Your task to perform on an android device: check android version Image 0: 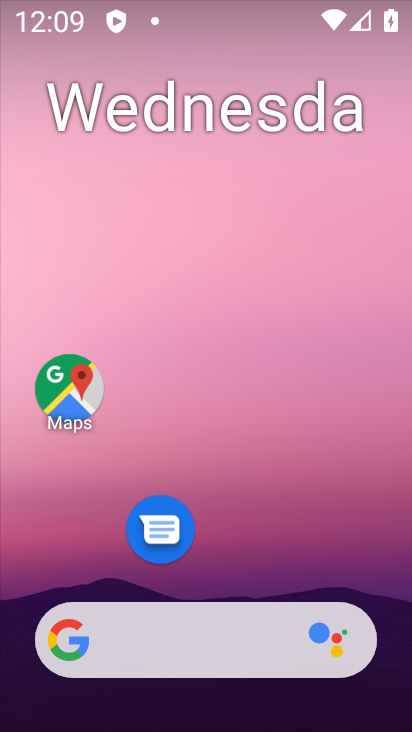
Step 0: drag from (184, 622) to (162, 10)
Your task to perform on an android device: check android version Image 1: 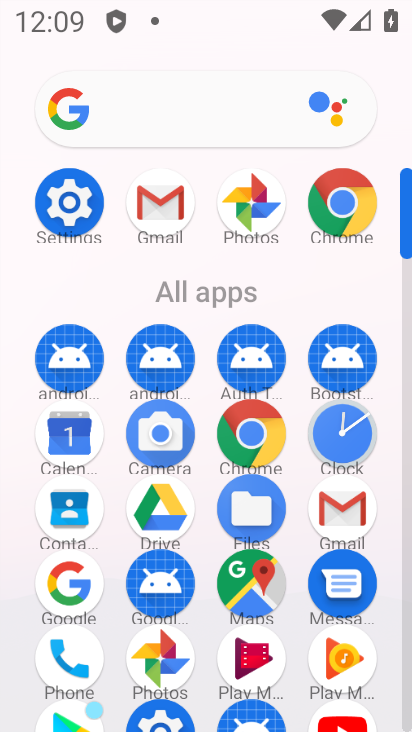
Step 1: click (75, 206)
Your task to perform on an android device: check android version Image 2: 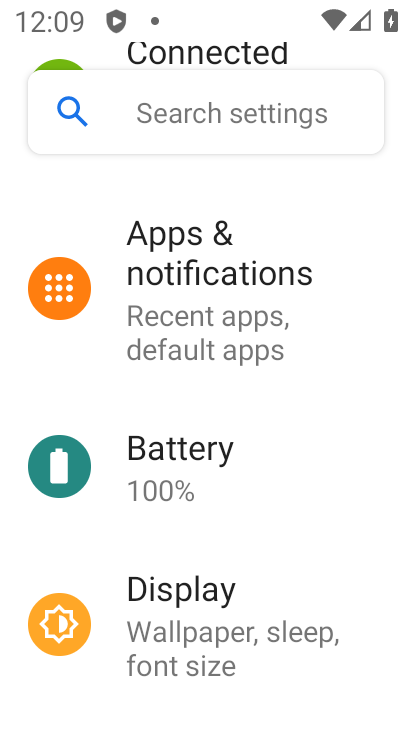
Step 2: drag from (129, 545) to (91, 39)
Your task to perform on an android device: check android version Image 3: 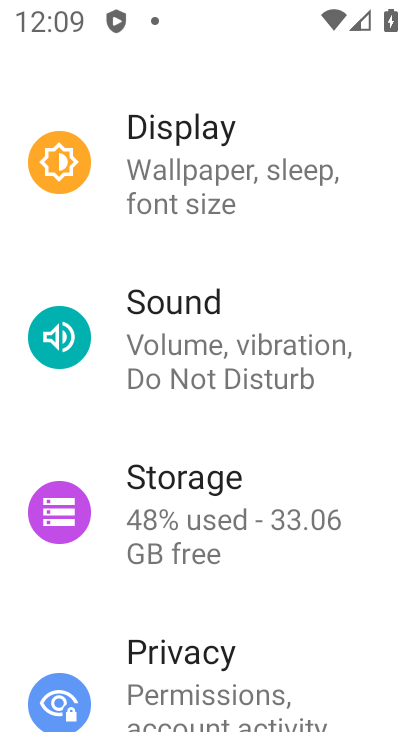
Step 3: drag from (191, 661) to (138, 161)
Your task to perform on an android device: check android version Image 4: 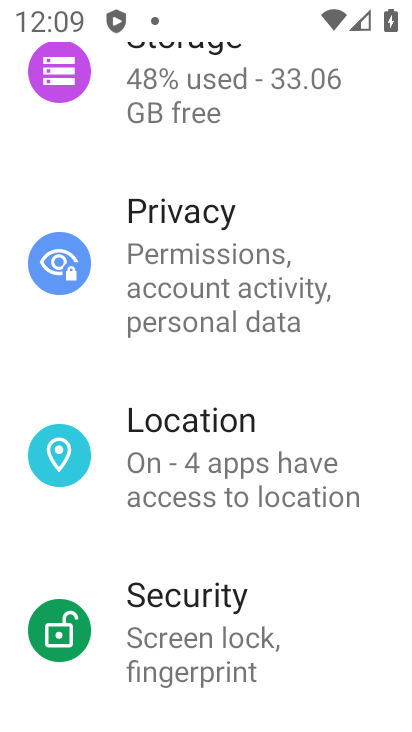
Step 4: drag from (207, 671) to (208, 209)
Your task to perform on an android device: check android version Image 5: 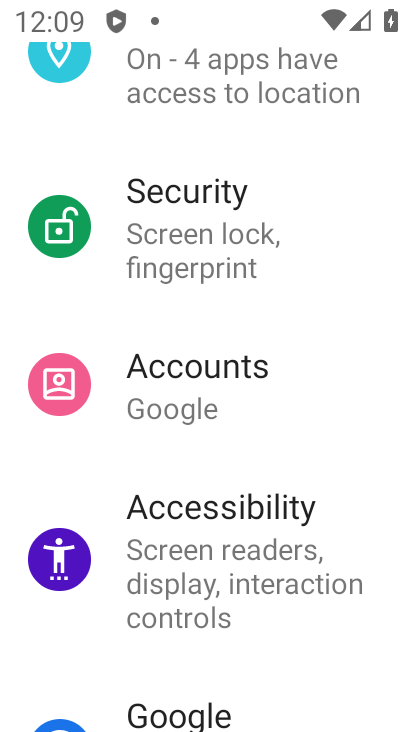
Step 5: drag from (198, 683) to (161, 14)
Your task to perform on an android device: check android version Image 6: 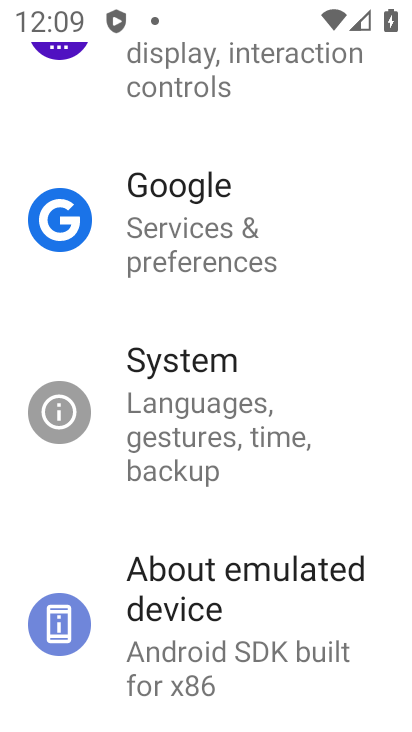
Step 6: click (197, 653)
Your task to perform on an android device: check android version Image 7: 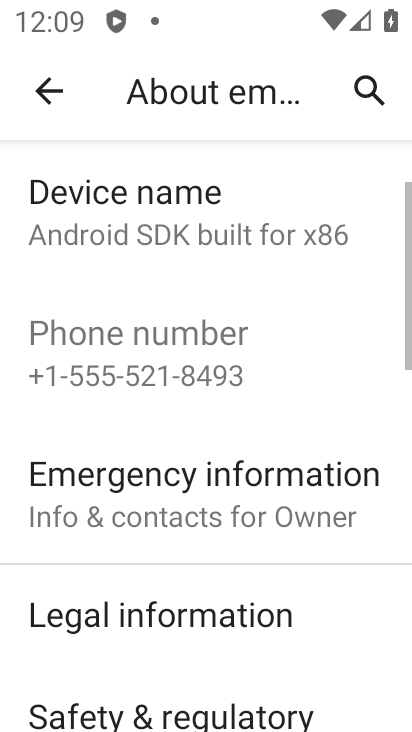
Step 7: drag from (238, 563) to (239, 197)
Your task to perform on an android device: check android version Image 8: 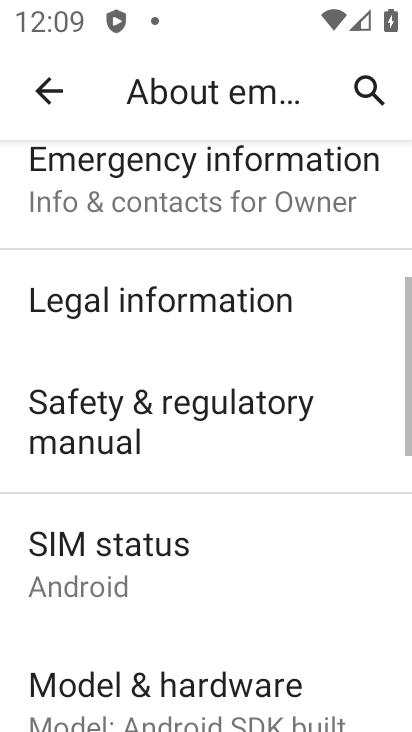
Step 8: drag from (181, 606) to (143, 286)
Your task to perform on an android device: check android version Image 9: 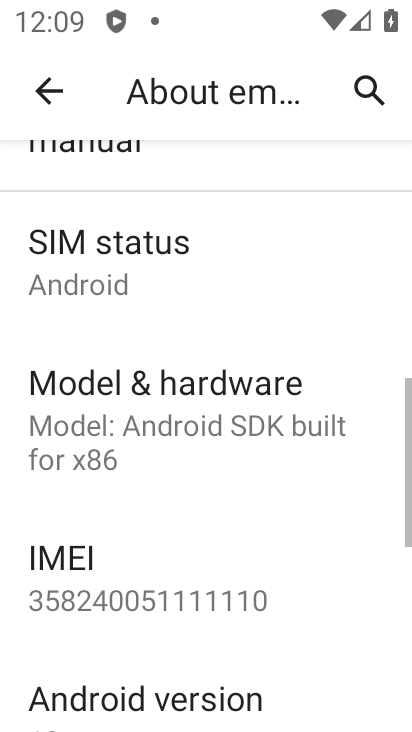
Step 9: click (146, 720)
Your task to perform on an android device: check android version Image 10: 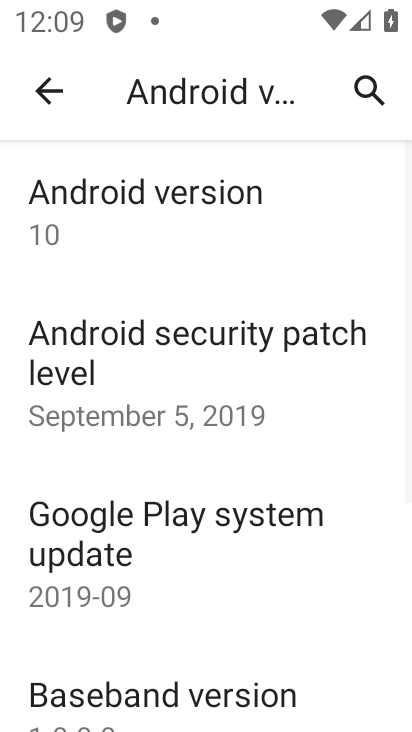
Step 10: task complete